Your task to perform on an android device: read, delete, or share a saved page in the chrome app Image 0: 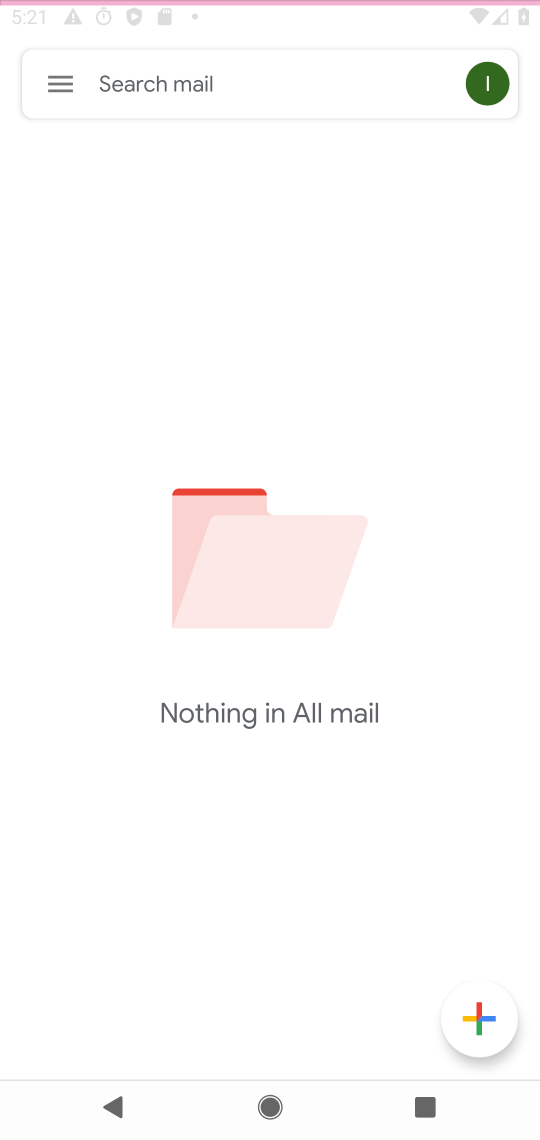
Step 0: click (320, 0)
Your task to perform on an android device: read, delete, or share a saved page in the chrome app Image 1: 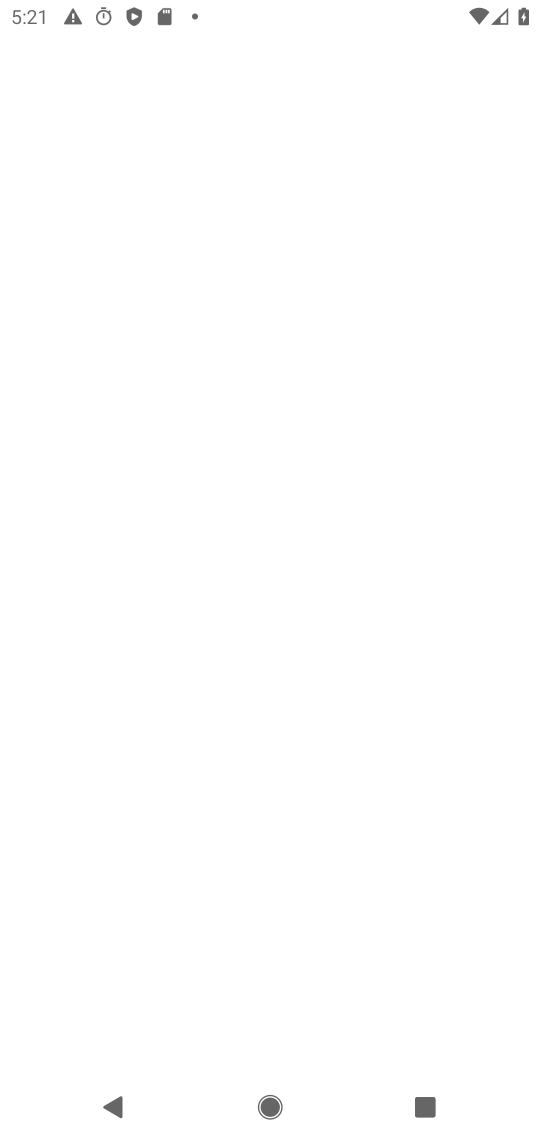
Step 1: press back button
Your task to perform on an android device: read, delete, or share a saved page in the chrome app Image 2: 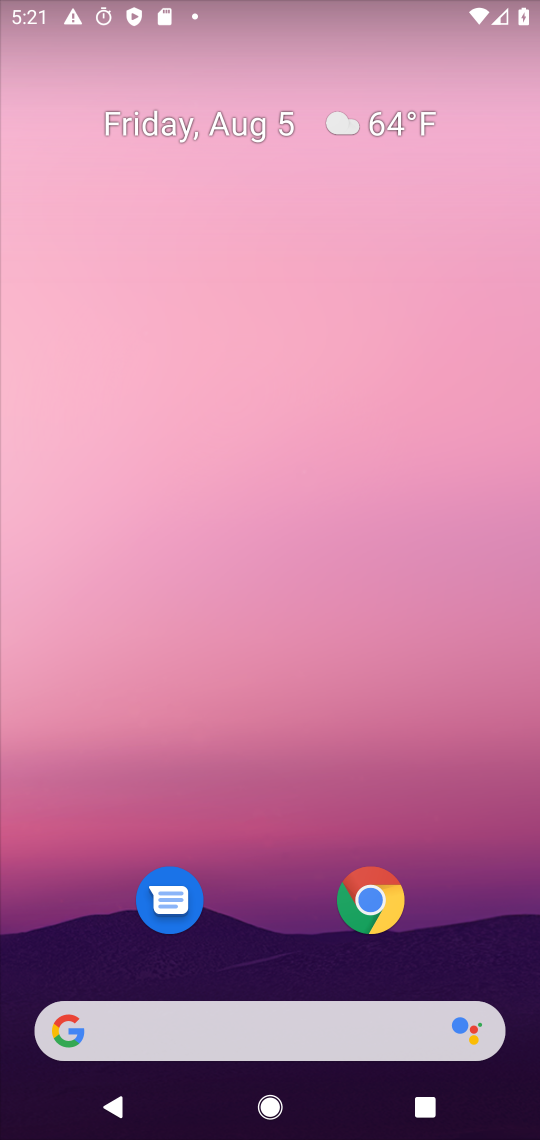
Step 2: click (357, 916)
Your task to perform on an android device: read, delete, or share a saved page in the chrome app Image 3: 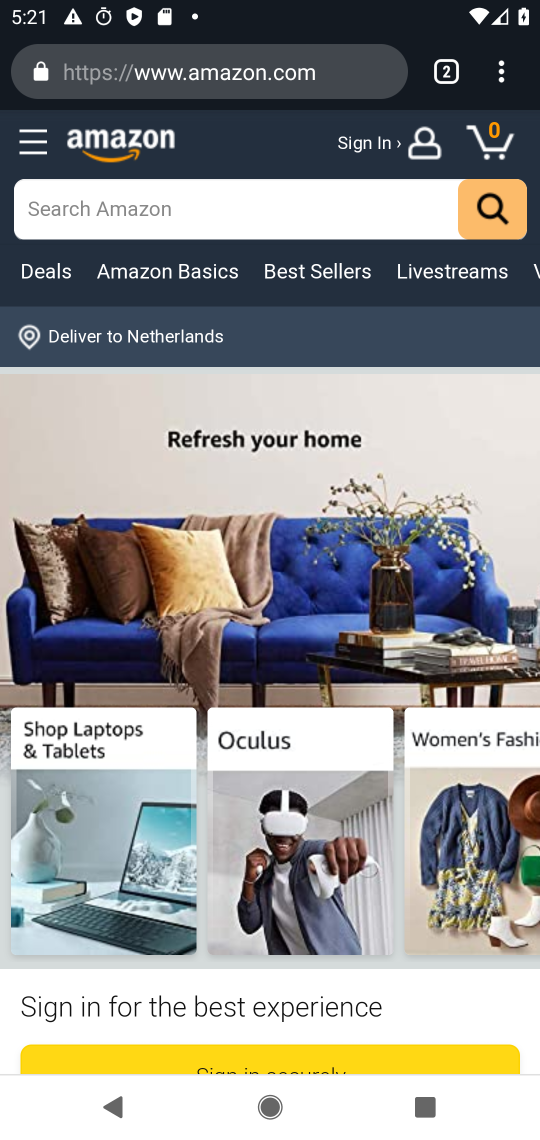
Step 3: drag from (499, 64) to (259, 464)
Your task to perform on an android device: read, delete, or share a saved page in the chrome app Image 4: 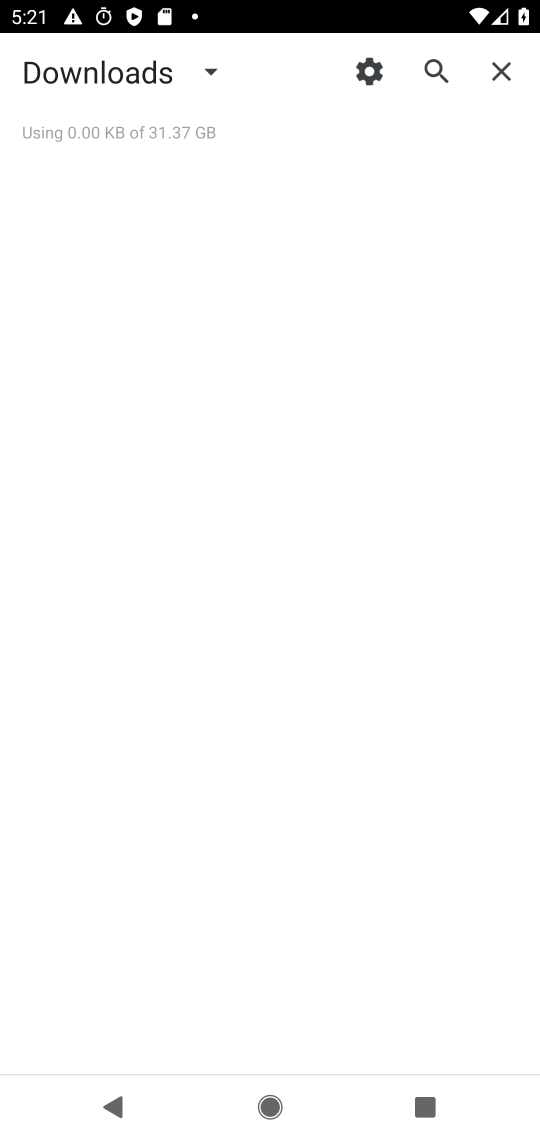
Step 4: click (198, 74)
Your task to perform on an android device: read, delete, or share a saved page in the chrome app Image 5: 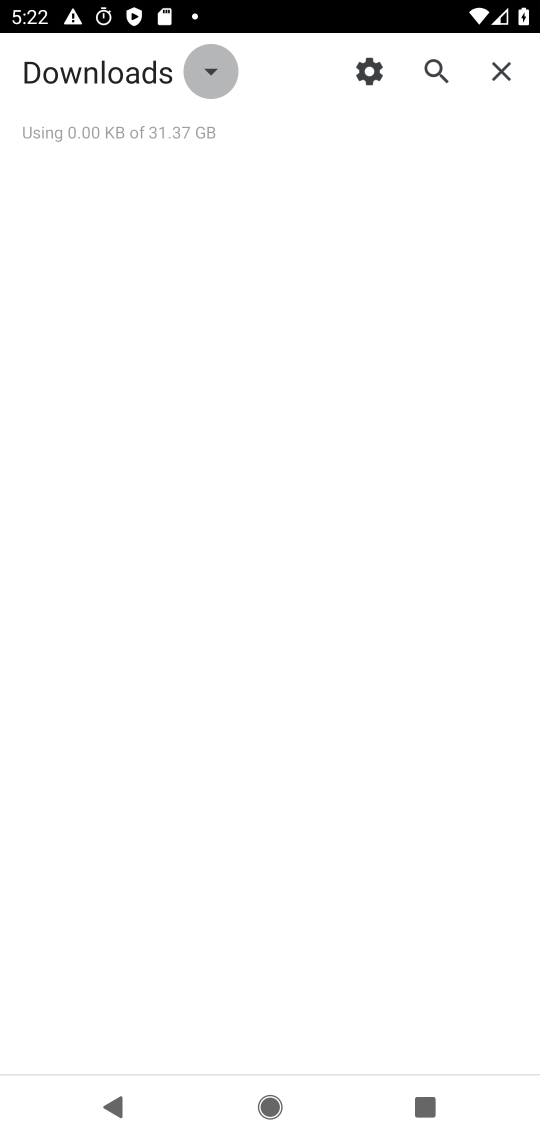
Step 5: click (198, 74)
Your task to perform on an android device: read, delete, or share a saved page in the chrome app Image 6: 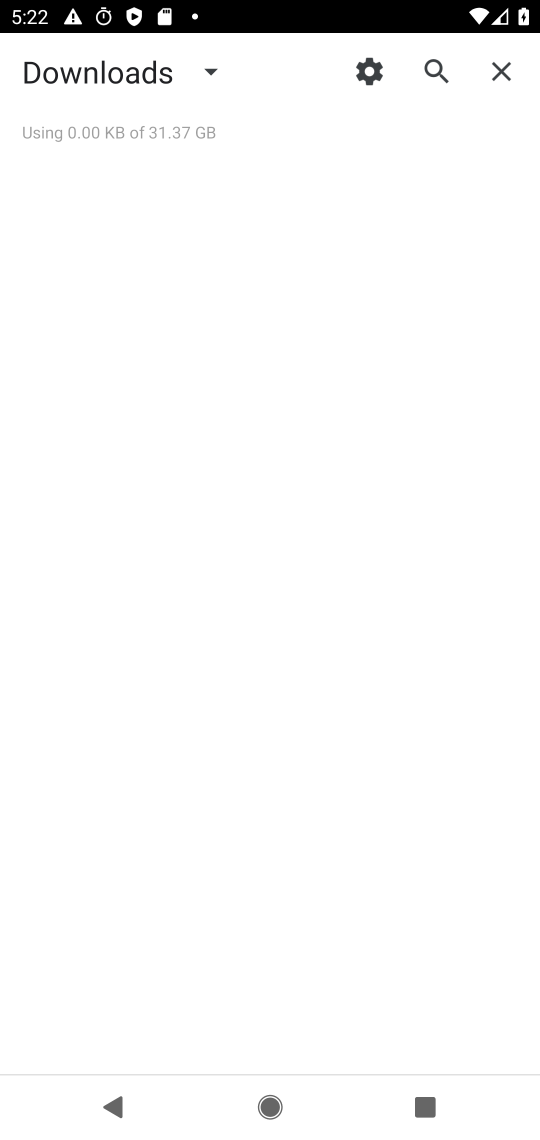
Step 6: click (216, 77)
Your task to perform on an android device: read, delete, or share a saved page in the chrome app Image 7: 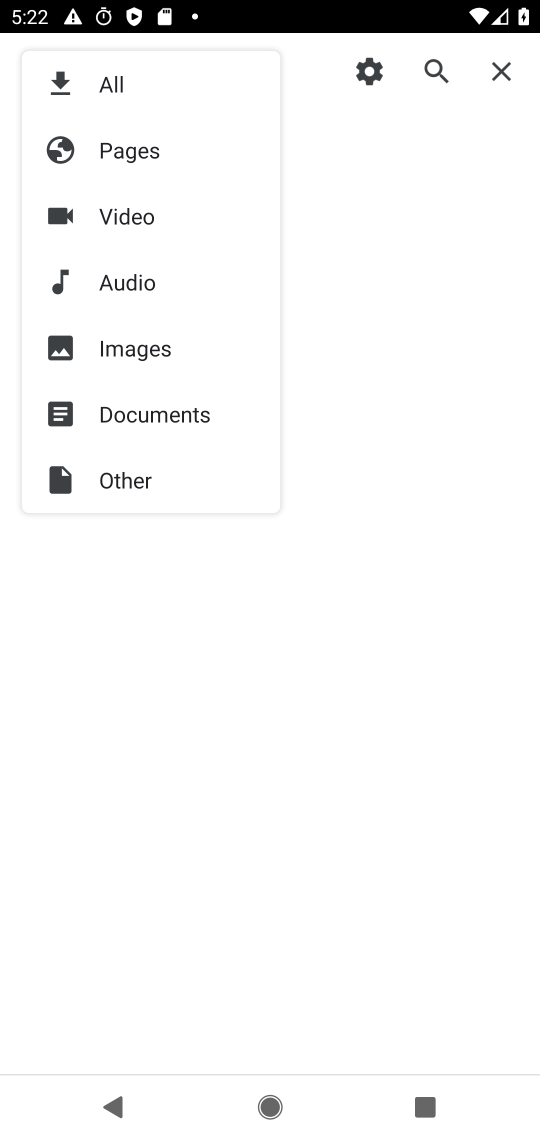
Step 7: click (116, 148)
Your task to perform on an android device: read, delete, or share a saved page in the chrome app Image 8: 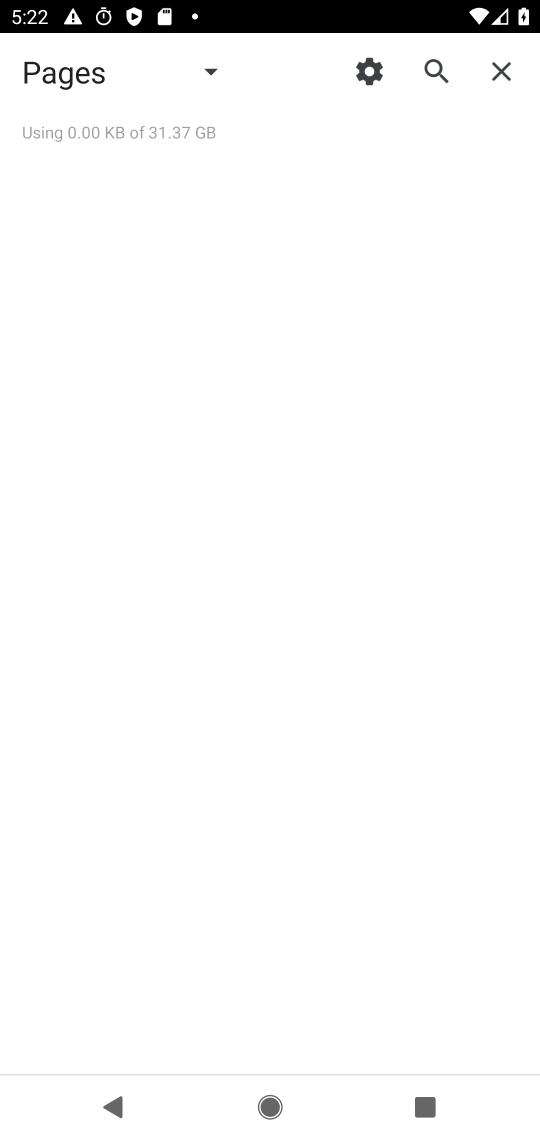
Step 8: task complete